Your task to perform on an android device: Open the stopwatch Image 0: 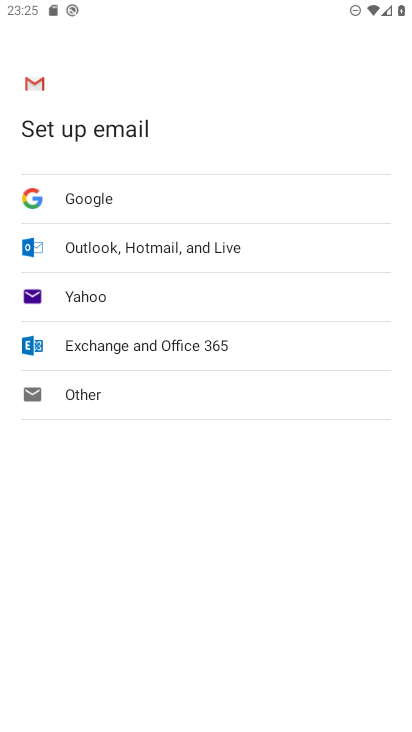
Step 0: press home button
Your task to perform on an android device: Open the stopwatch Image 1: 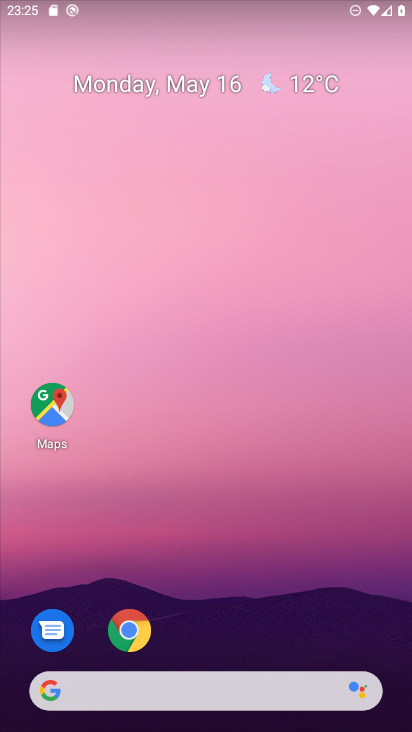
Step 1: drag from (249, 484) to (223, 30)
Your task to perform on an android device: Open the stopwatch Image 2: 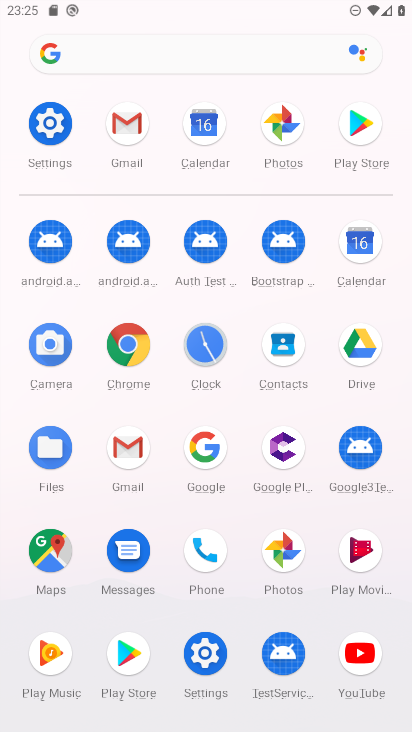
Step 2: click (203, 340)
Your task to perform on an android device: Open the stopwatch Image 3: 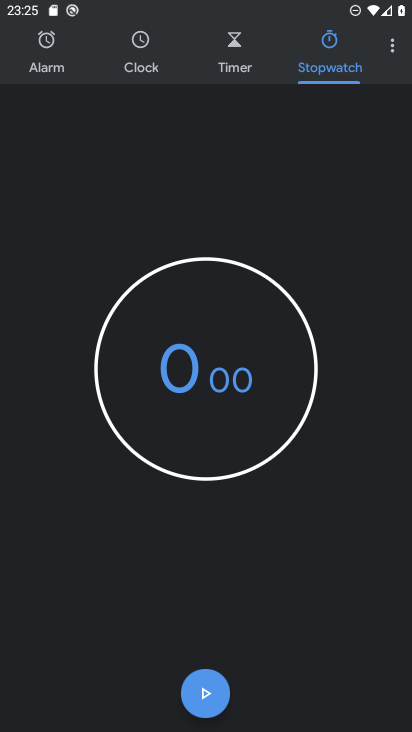
Step 3: click (329, 62)
Your task to perform on an android device: Open the stopwatch Image 4: 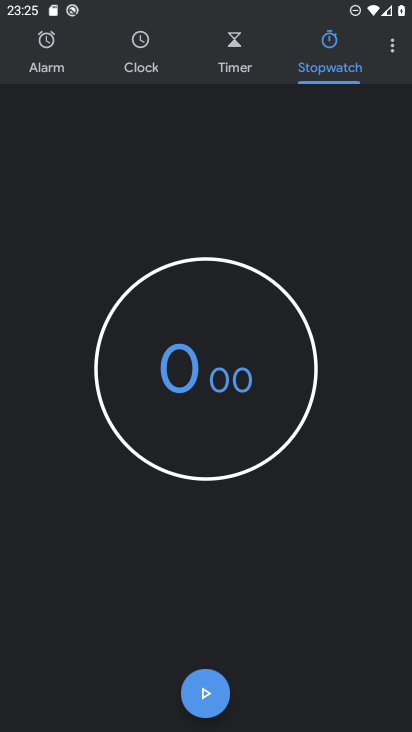
Step 4: task complete